Your task to perform on an android device: open chrome privacy settings Image 0: 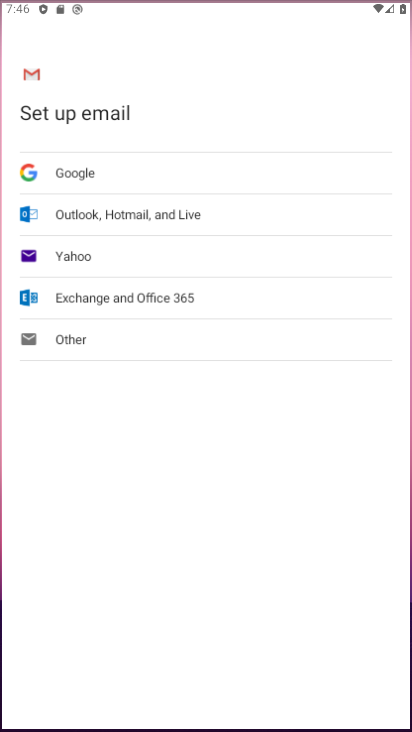
Step 0: press home button
Your task to perform on an android device: open chrome privacy settings Image 1: 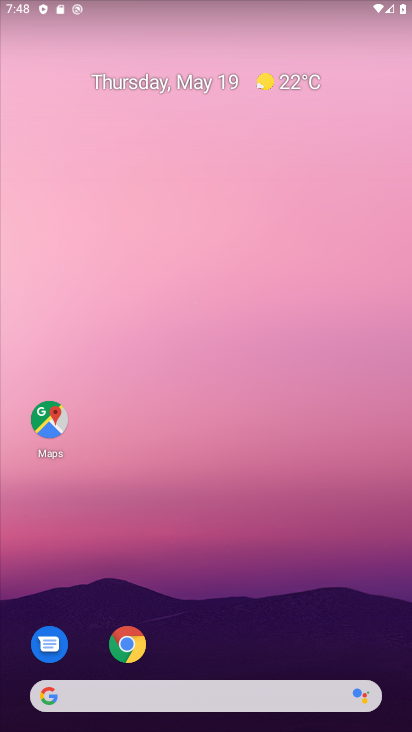
Step 1: drag from (247, 724) to (228, 149)
Your task to perform on an android device: open chrome privacy settings Image 2: 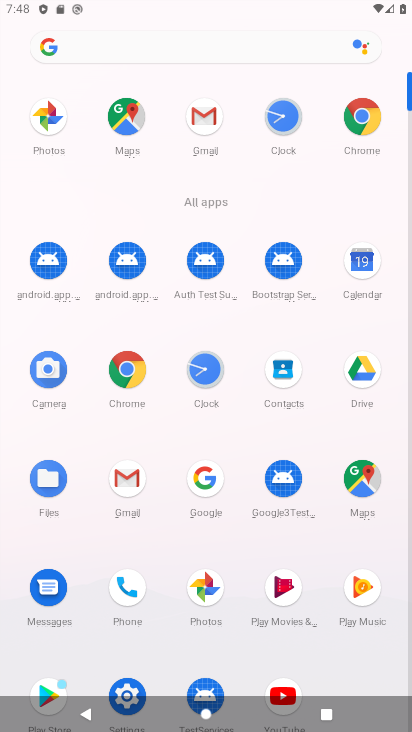
Step 2: click (350, 124)
Your task to perform on an android device: open chrome privacy settings Image 3: 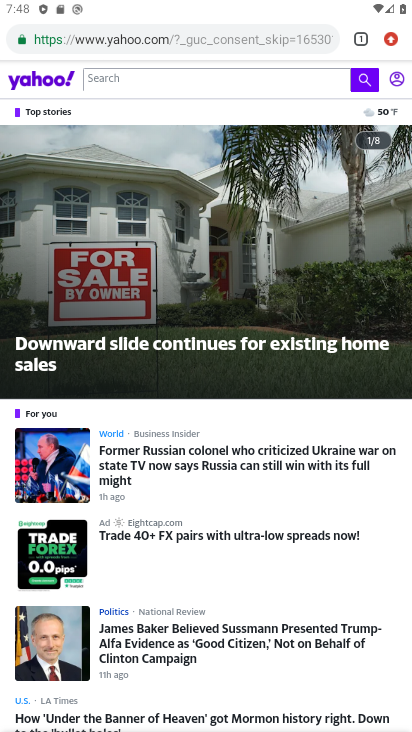
Step 3: click (383, 44)
Your task to perform on an android device: open chrome privacy settings Image 4: 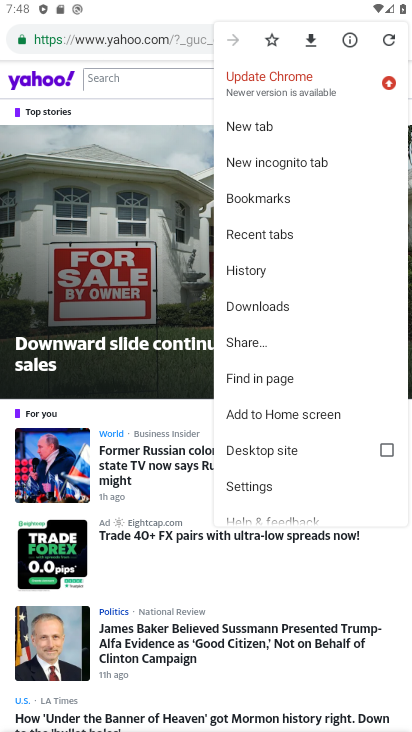
Step 4: click (259, 478)
Your task to perform on an android device: open chrome privacy settings Image 5: 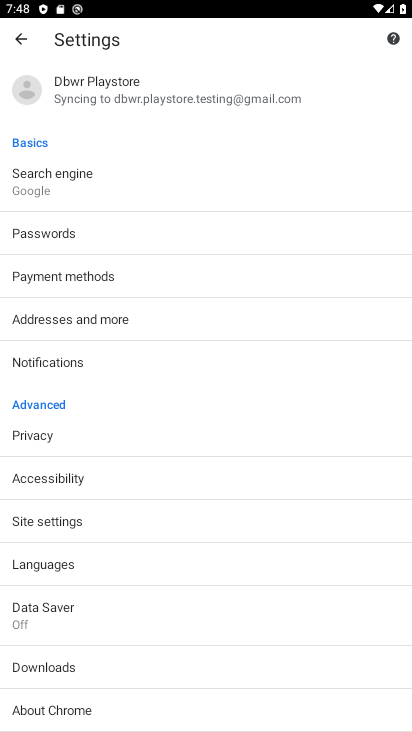
Step 5: click (41, 441)
Your task to perform on an android device: open chrome privacy settings Image 6: 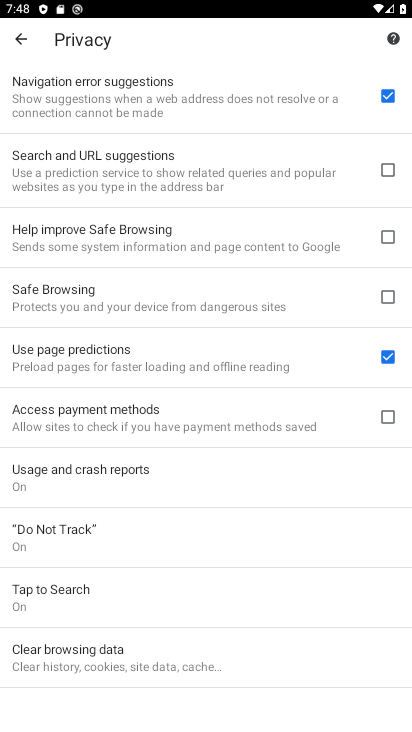
Step 6: task complete